Your task to perform on an android device: choose inbox layout in the gmail app Image 0: 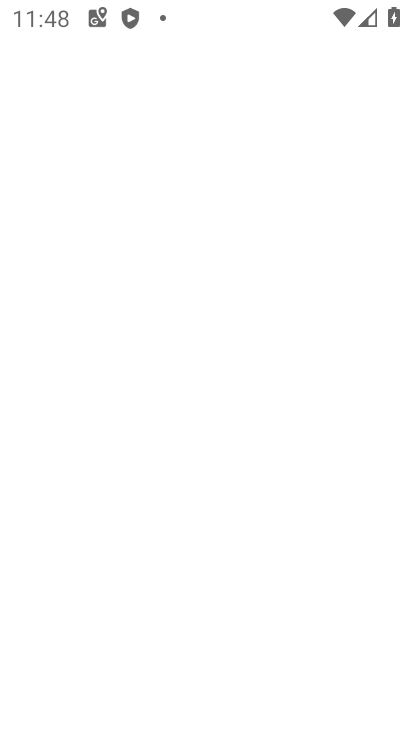
Step 0: click (271, 514)
Your task to perform on an android device: choose inbox layout in the gmail app Image 1: 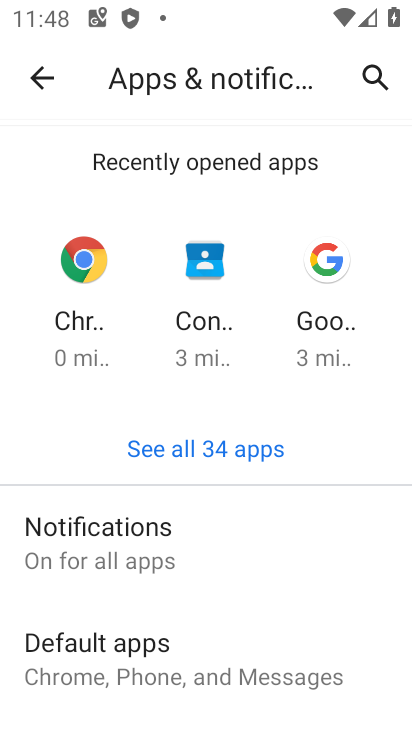
Step 1: press home button
Your task to perform on an android device: choose inbox layout in the gmail app Image 2: 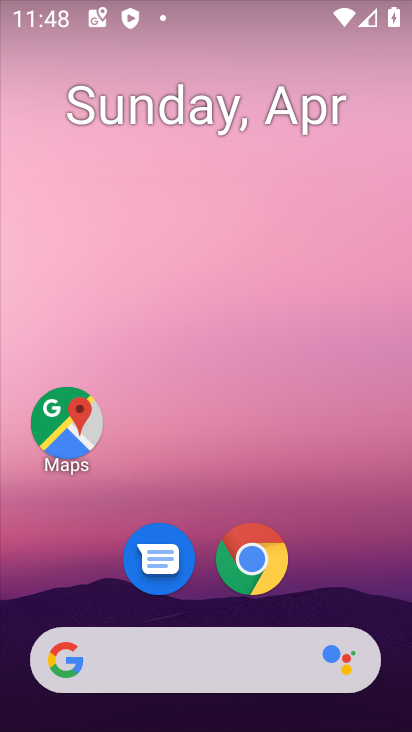
Step 2: drag from (348, 582) to (330, 19)
Your task to perform on an android device: choose inbox layout in the gmail app Image 3: 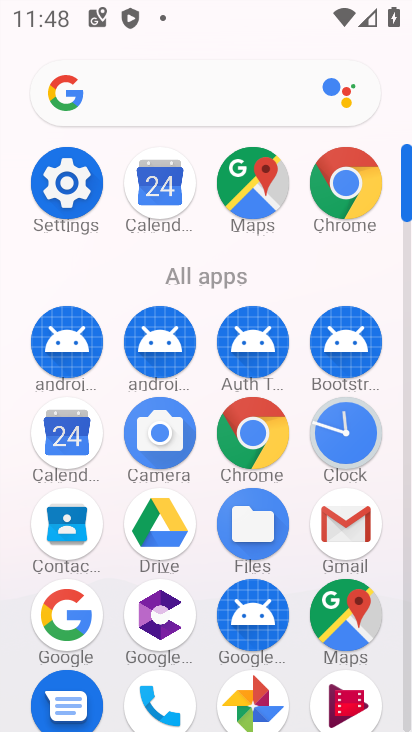
Step 3: click (331, 526)
Your task to perform on an android device: choose inbox layout in the gmail app Image 4: 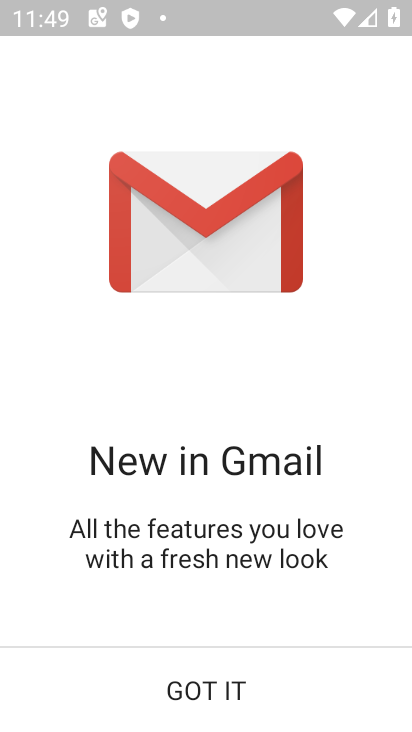
Step 4: click (232, 677)
Your task to perform on an android device: choose inbox layout in the gmail app Image 5: 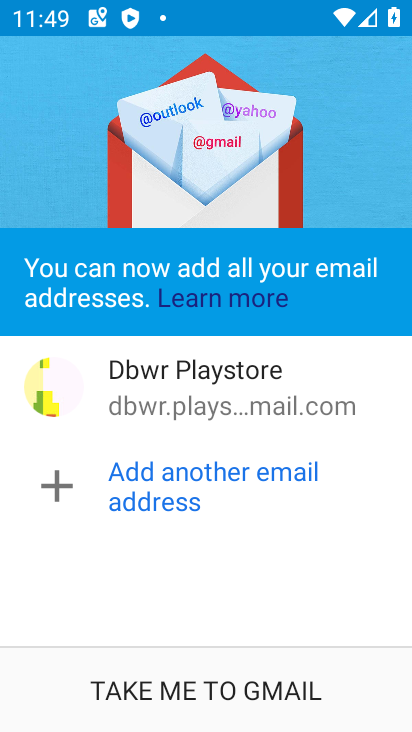
Step 5: click (232, 677)
Your task to perform on an android device: choose inbox layout in the gmail app Image 6: 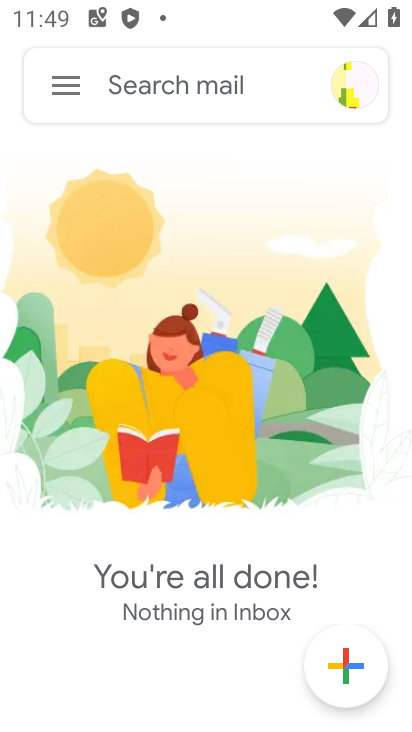
Step 6: click (73, 94)
Your task to perform on an android device: choose inbox layout in the gmail app Image 7: 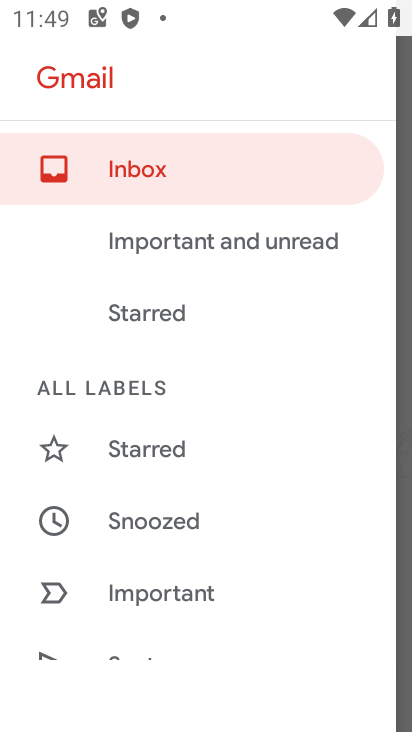
Step 7: drag from (187, 562) to (194, 386)
Your task to perform on an android device: choose inbox layout in the gmail app Image 8: 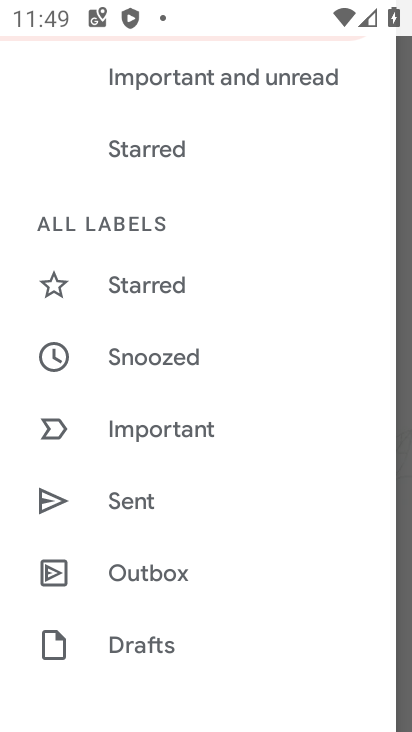
Step 8: drag from (207, 149) to (136, 405)
Your task to perform on an android device: choose inbox layout in the gmail app Image 9: 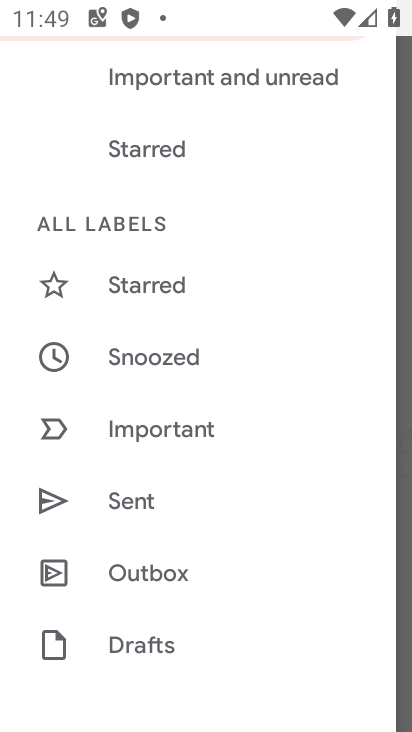
Step 9: drag from (134, 251) to (163, 437)
Your task to perform on an android device: choose inbox layout in the gmail app Image 10: 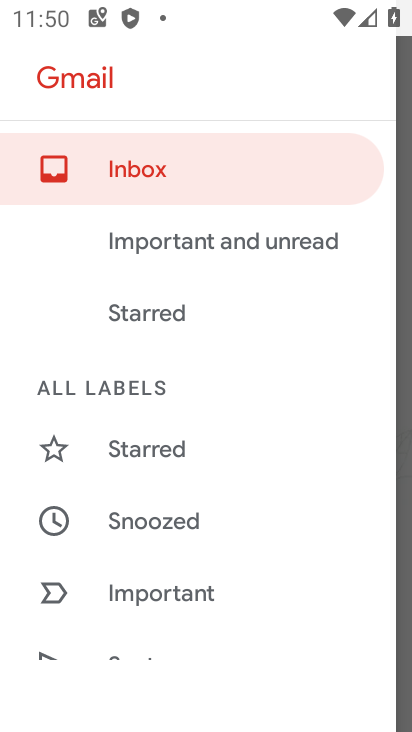
Step 10: click (202, 180)
Your task to perform on an android device: choose inbox layout in the gmail app Image 11: 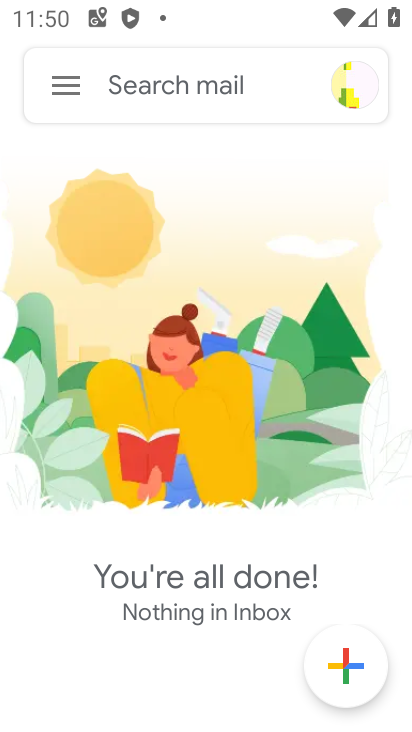
Step 11: task complete